Your task to perform on an android device: Open the calendar and show me this week's events? Image 0: 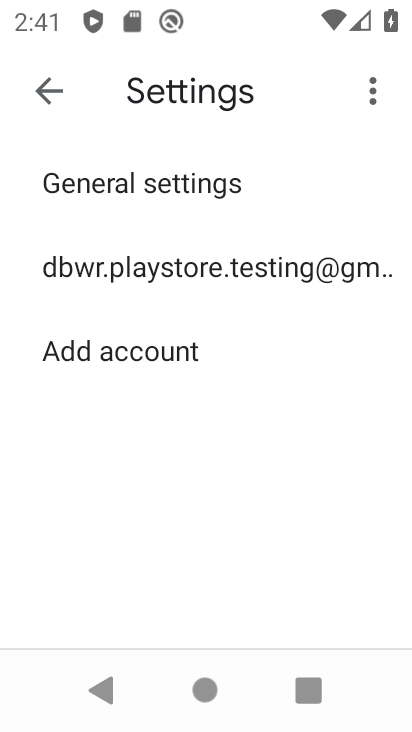
Step 0: press home button
Your task to perform on an android device: Open the calendar and show me this week's events? Image 1: 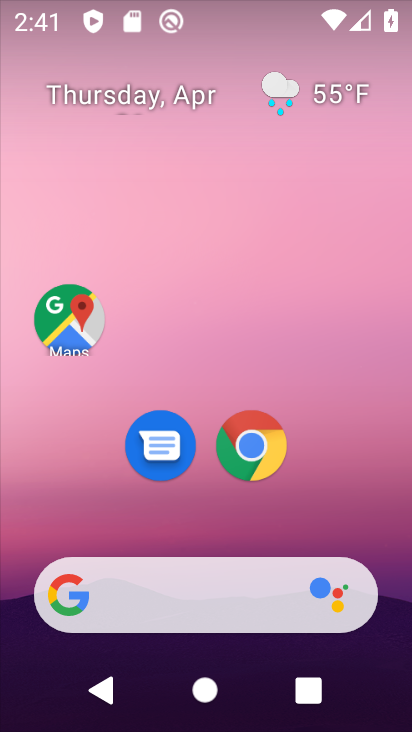
Step 1: drag from (208, 718) to (185, 99)
Your task to perform on an android device: Open the calendar and show me this week's events? Image 2: 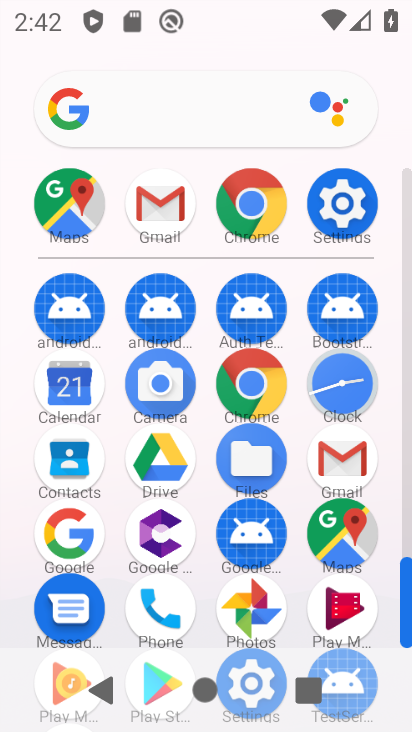
Step 2: click (70, 381)
Your task to perform on an android device: Open the calendar and show me this week's events? Image 3: 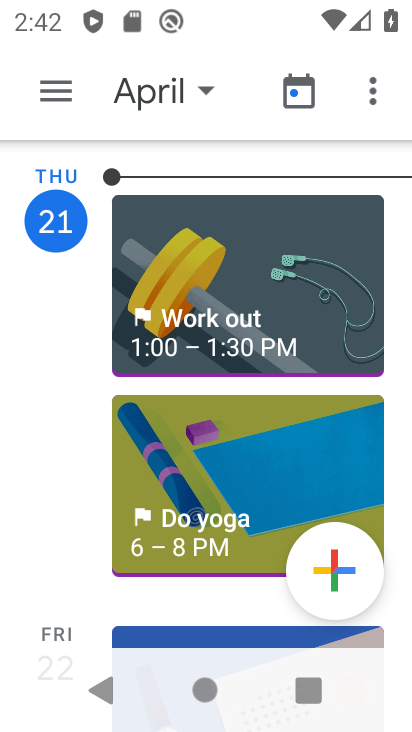
Step 3: click (51, 90)
Your task to perform on an android device: Open the calendar and show me this week's events? Image 4: 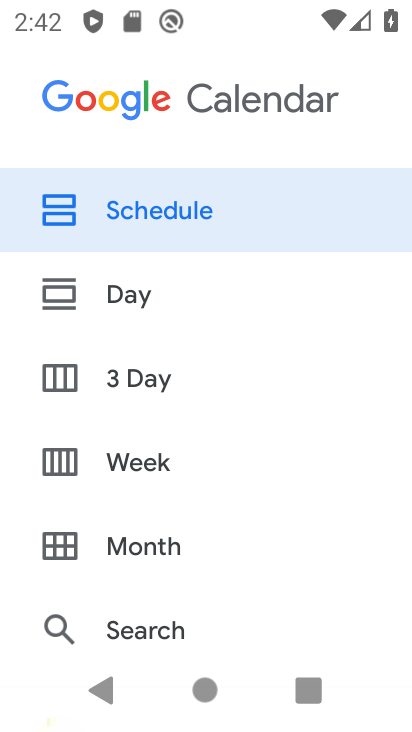
Step 4: drag from (141, 598) to (178, 202)
Your task to perform on an android device: Open the calendar and show me this week's events? Image 5: 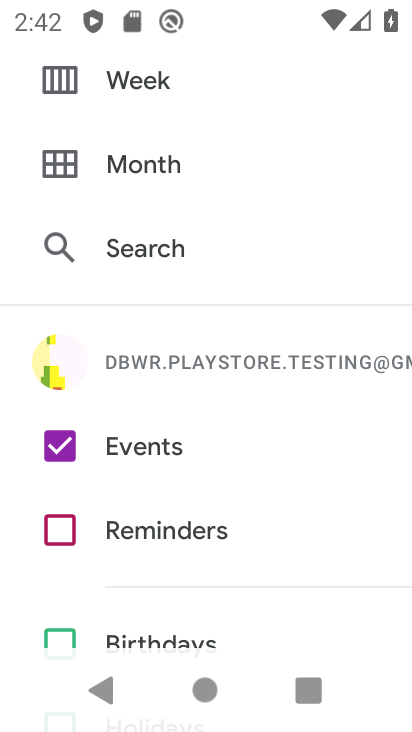
Step 5: drag from (237, 161) to (274, 580)
Your task to perform on an android device: Open the calendar and show me this week's events? Image 6: 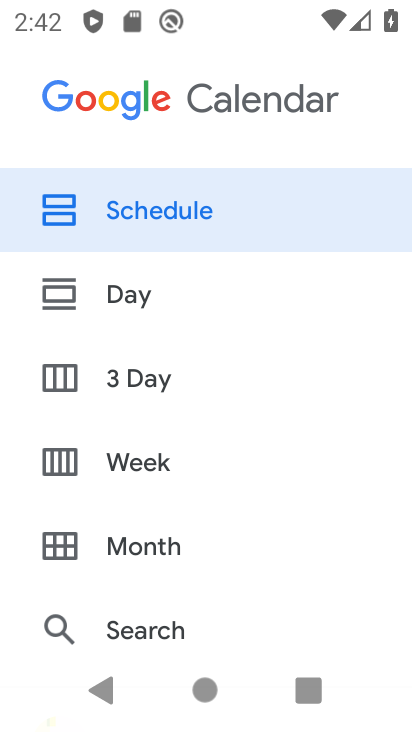
Step 6: click (129, 461)
Your task to perform on an android device: Open the calendar and show me this week's events? Image 7: 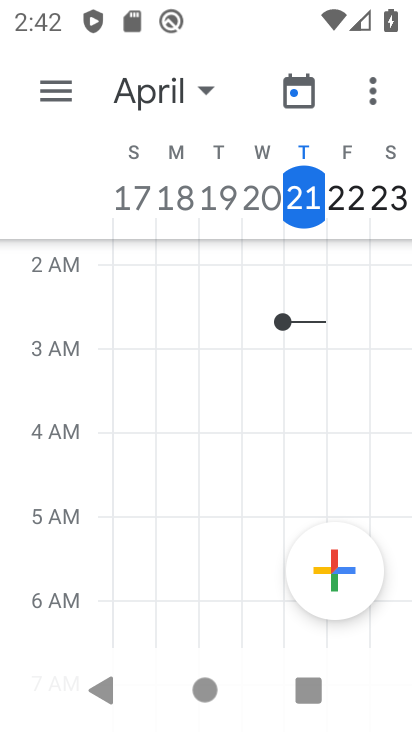
Step 7: task complete